Your task to perform on an android device: move an email to a new category in the gmail app Image 0: 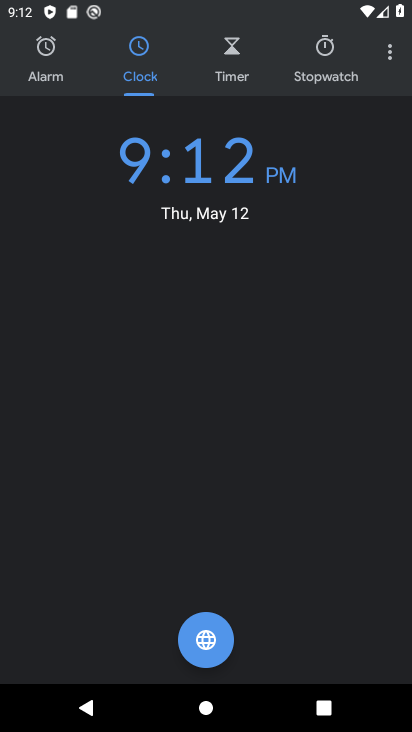
Step 0: press home button
Your task to perform on an android device: move an email to a new category in the gmail app Image 1: 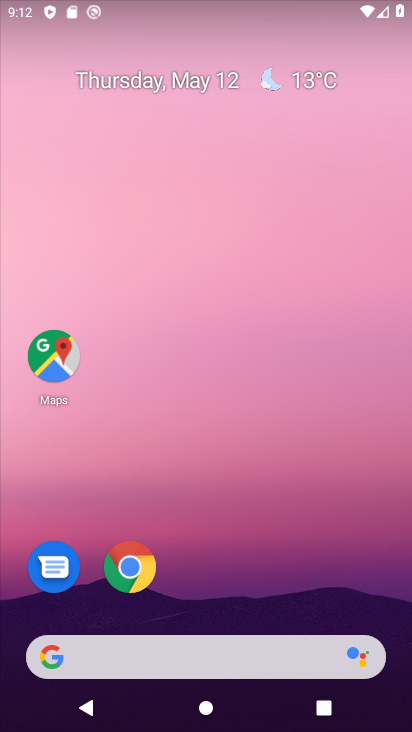
Step 1: drag from (248, 610) to (243, 79)
Your task to perform on an android device: move an email to a new category in the gmail app Image 2: 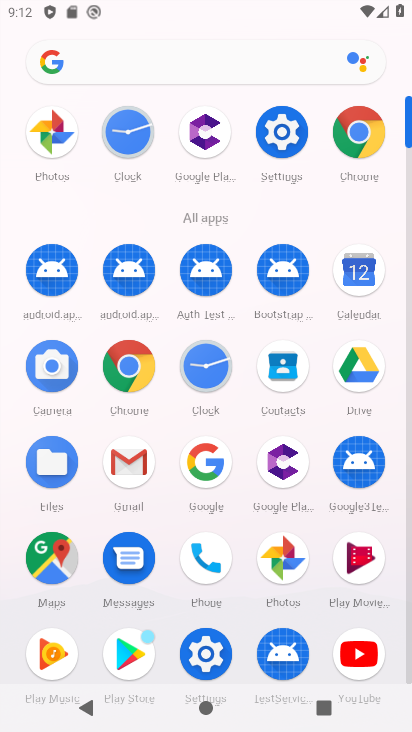
Step 2: click (135, 499)
Your task to perform on an android device: move an email to a new category in the gmail app Image 3: 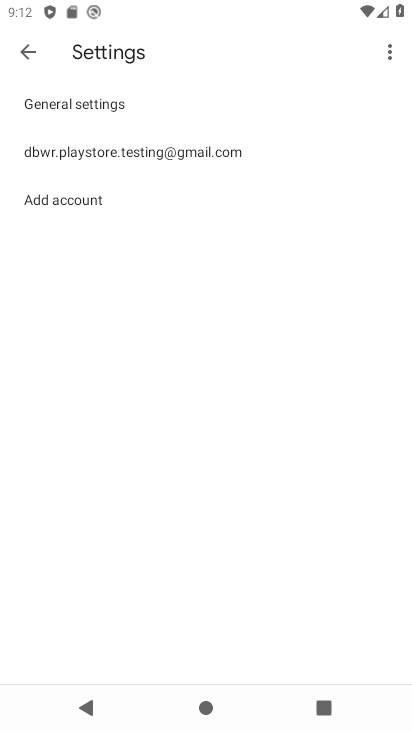
Step 3: click (132, 158)
Your task to perform on an android device: move an email to a new category in the gmail app Image 4: 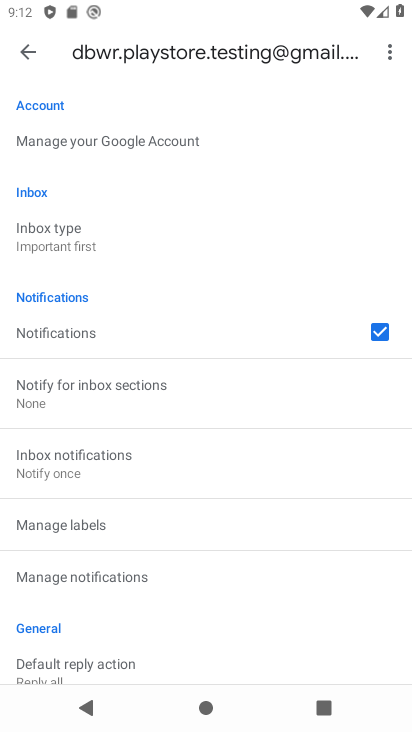
Step 4: drag from (117, 611) to (159, 327)
Your task to perform on an android device: move an email to a new category in the gmail app Image 5: 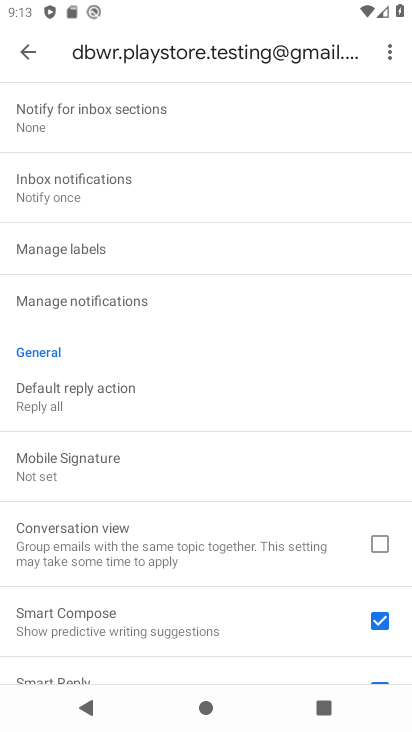
Step 5: click (31, 55)
Your task to perform on an android device: move an email to a new category in the gmail app Image 6: 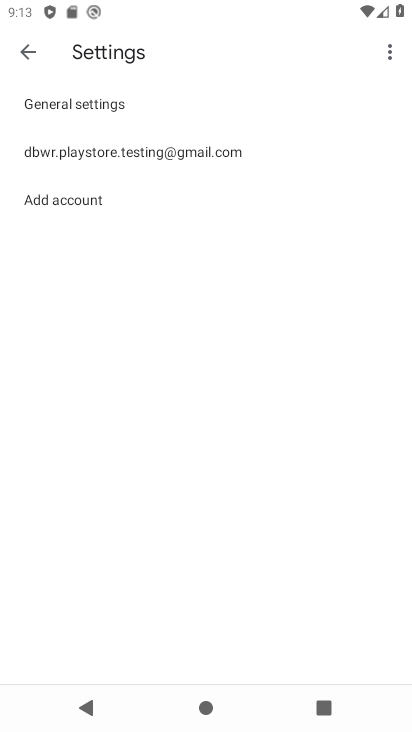
Step 6: click (31, 54)
Your task to perform on an android device: move an email to a new category in the gmail app Image 7: 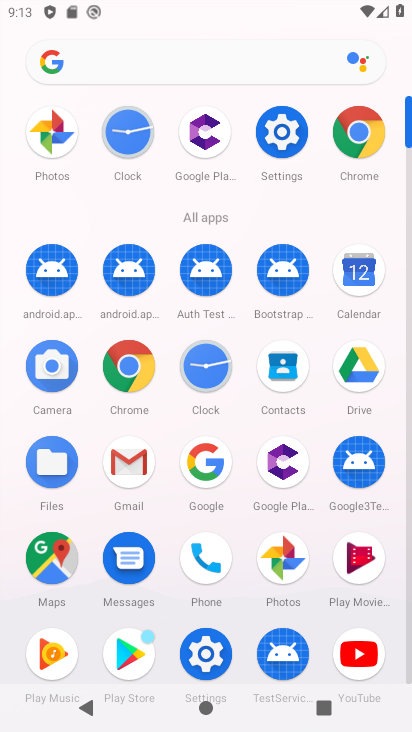
Step 7: click (132, 480)
Your task to perform on an android device: move an email to a new category in the gmail app Image 8: 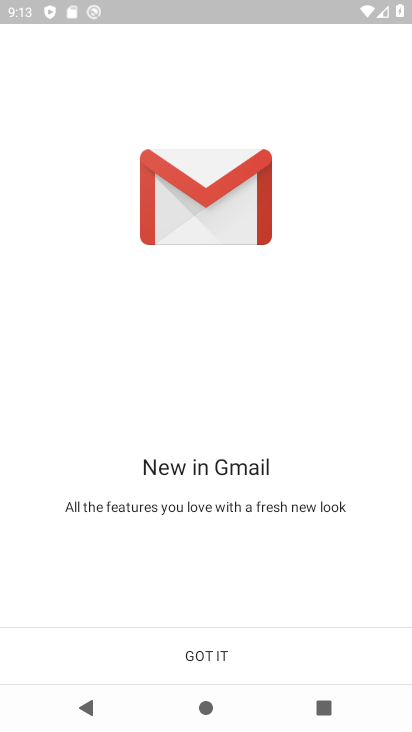
Step 8: click (226, 661)
Your task to perform on an android device: move an email to a new category in the gmail app Image 9: 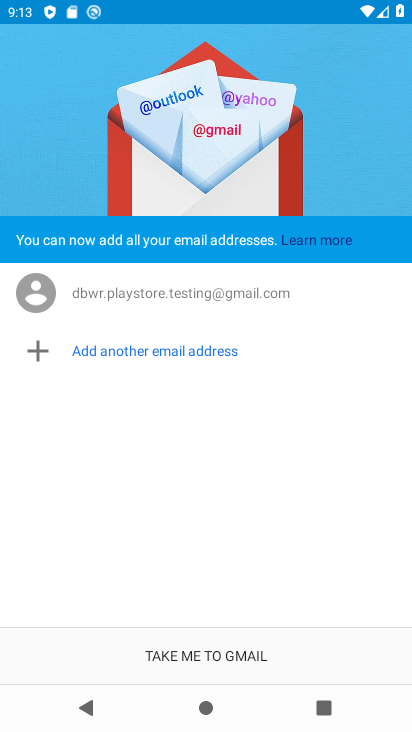
Step 9: click (224, 653)
Your task to perform on an android device: move an email to a new category in the gmail app Image 10: 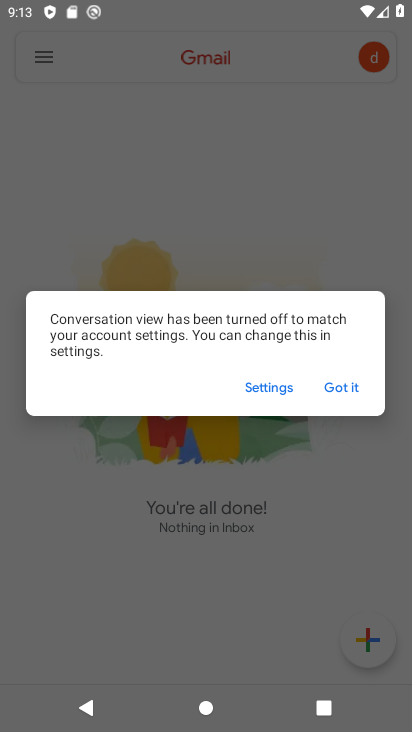
Step 10: click (336, 403)
Your task to perform on an android device: move an email to a new category in the gmail app Image 11: 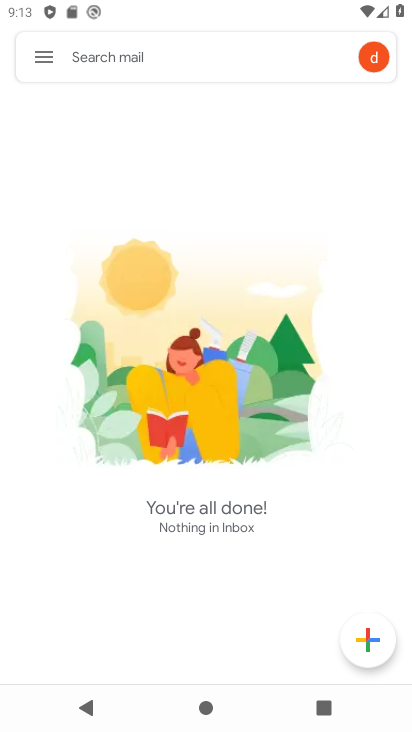
Step 11: click (36, 65)
Your task to perform on an android device: move an email to a new category in the gmail app Image 12: 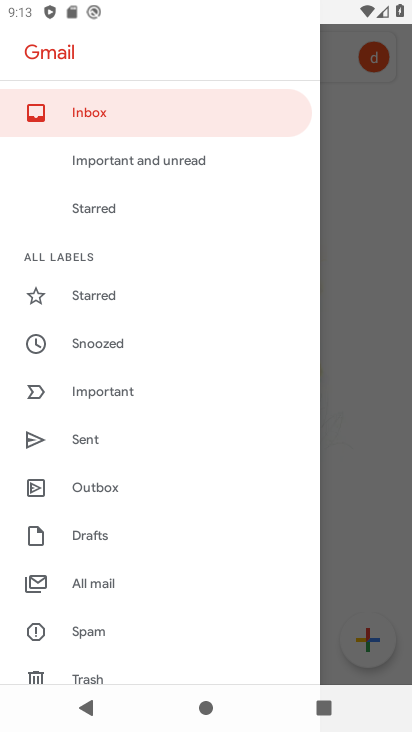
Step 12: click (128, 593)
Your task to perform on an android device: move an email to a new category in the gmail app Image 13: 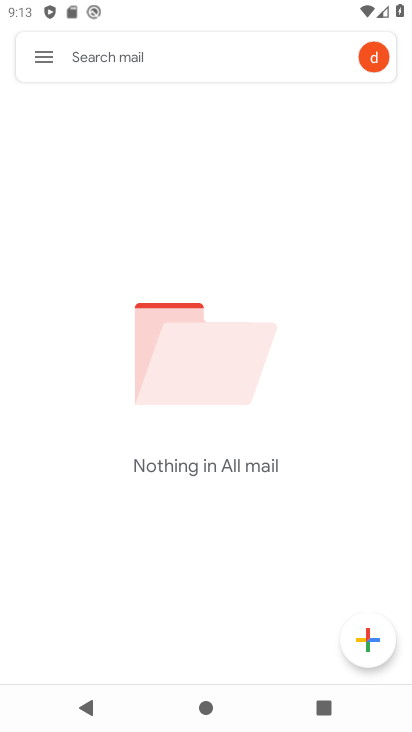
Step 13: task complete